Your task to perform on an android device: open chrome privacy settings Image 0: 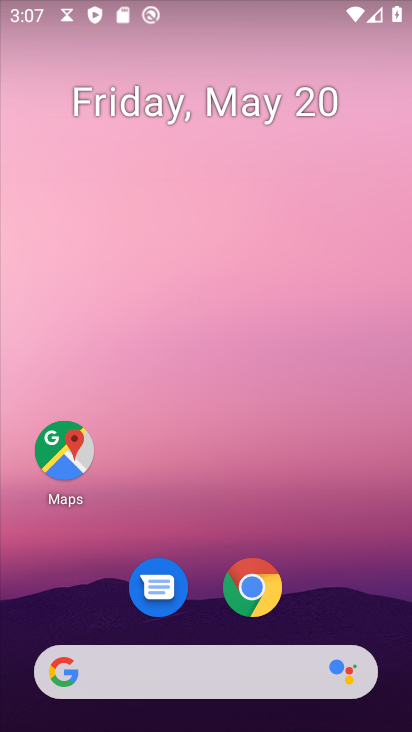
Step 0: click (266, 597)
Your task to perform on an android device: open chrome privacy settings Image 1: 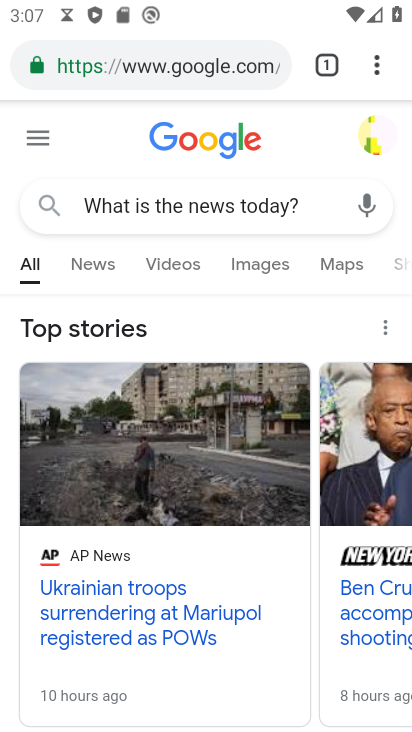
Step 1: click (387, 52)
Your task to perform on an android device: open chrome privacy settings Image 2: 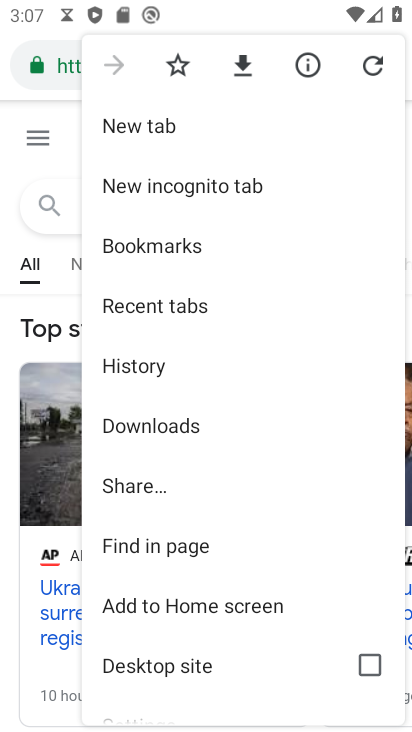
Step 2: drag from (248, 717) to (223, 381)
Your task to perform on an android device: open chrome privacy settings Image 3: 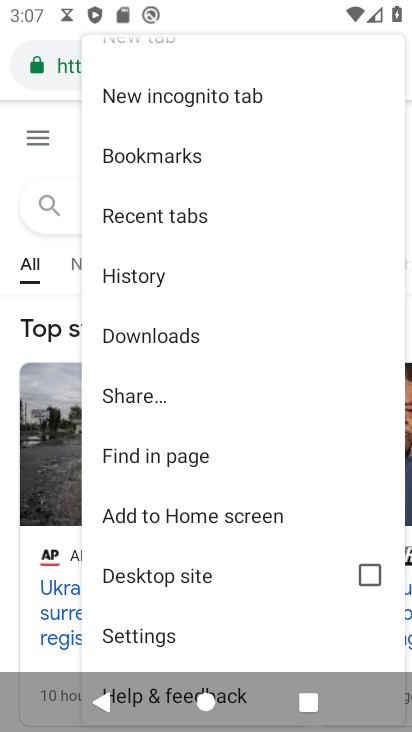
Step 3: click (223, 646)
Your task to perform on an android device: open chrome privacy settings Image 4: 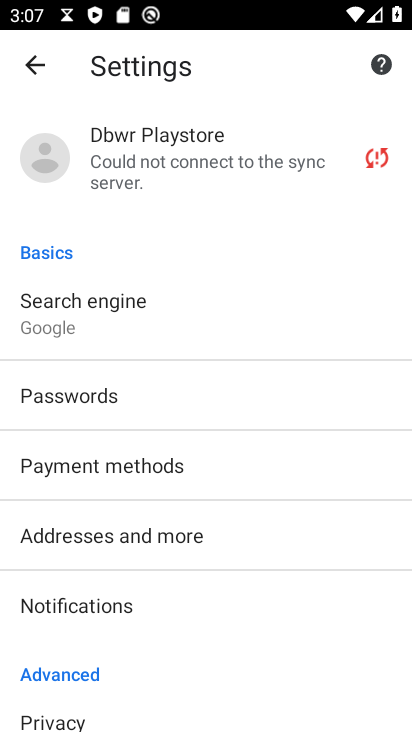
Step 4: drag from (223, 646) to (213, 283)
Your task to perform on an android device: open chrome privacy settings Image 5: 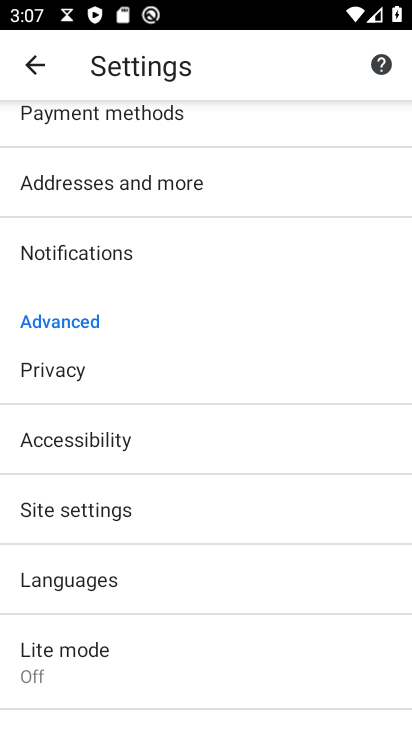
Step 5: click (223, 384)
Your task to perform on an android device: open chrome privacy settings Image 6: 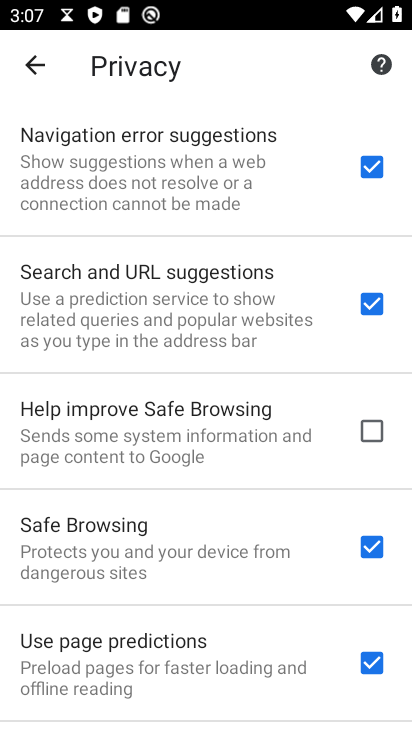
Step 6: task complete